Your task to perform on an android device: turn on airplane mode Image 0: 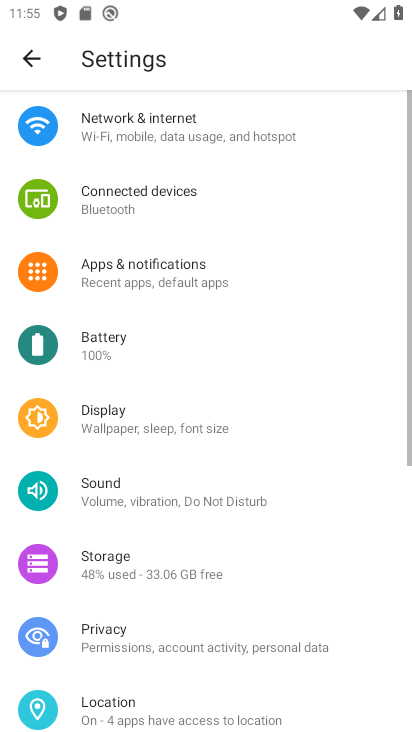
Step 0: click (149, 141)
Your task to perform on an android device: turn on airplane mode Image 1: 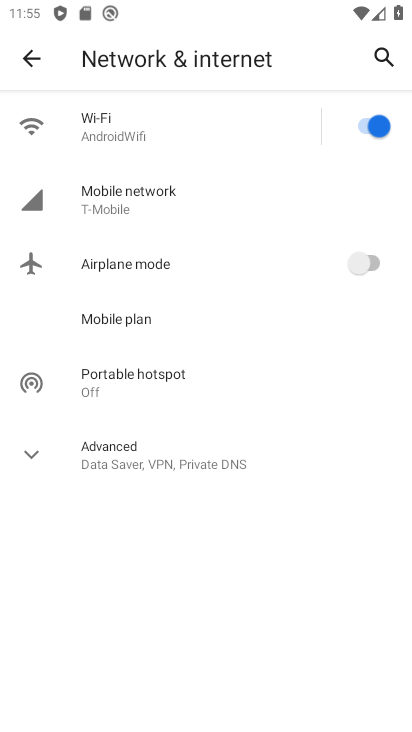
Step 1: task complete